Your task to perform on an android device: change the clock display to show seconds Image 0: 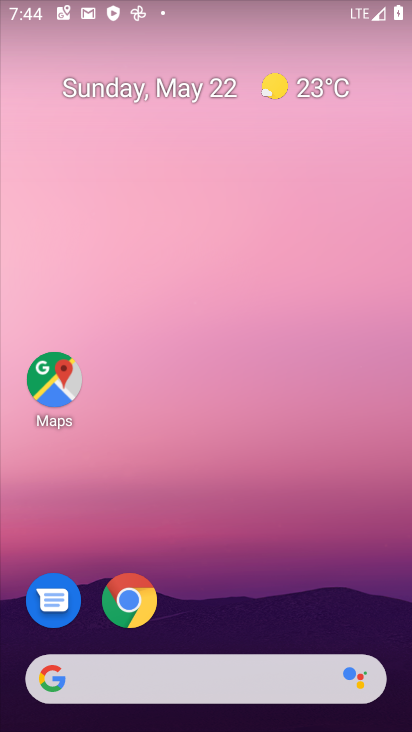
Step 0: drag from (300, 608) to (285, 99)
Your task to perform on an android device: change the clock display to show seconds Image 1: 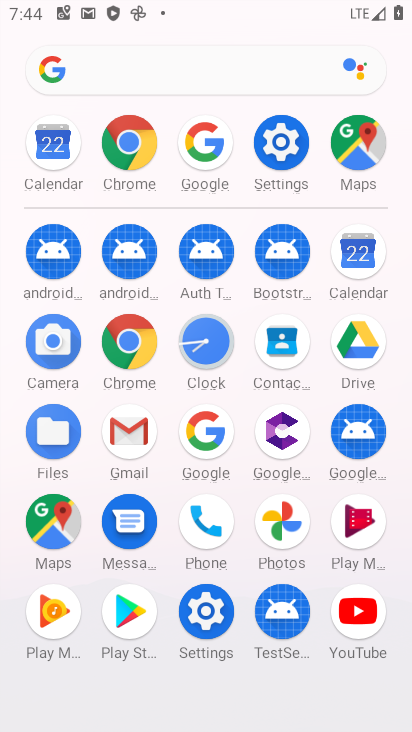
Step 1: click (222, 364)
Your task to perform on an android device: change the clock display to show seconds Image 2: 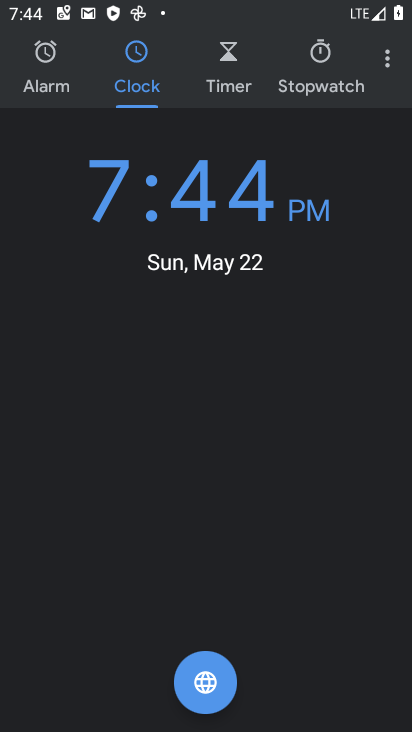
Step 2: click (383, 63)
Your task to perform on an android device: change the clock display to show seconds Image 3: 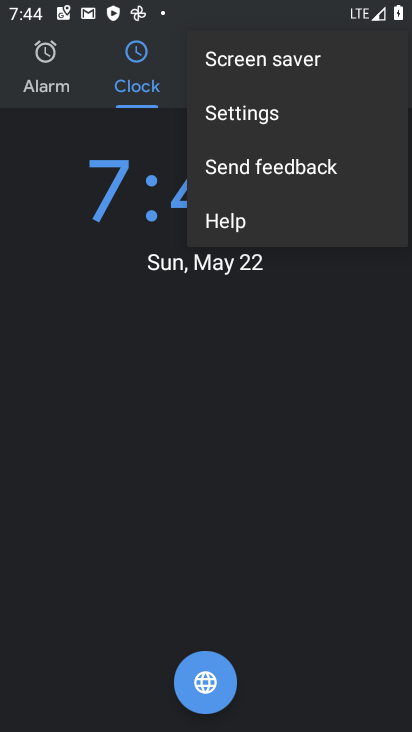
Step 3: click (296, 111)
Your task to perform on an android device: change the clock display to show seconds Image 4: 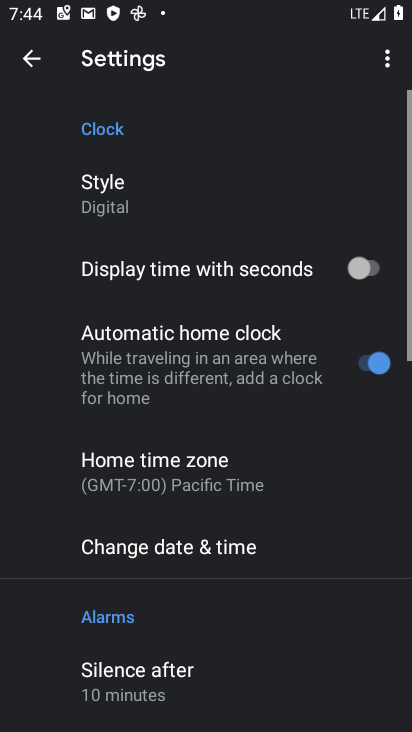
Step 4: click (330, 262)
Your task to perform on an android device: change the clock display to show seconds Image 5: 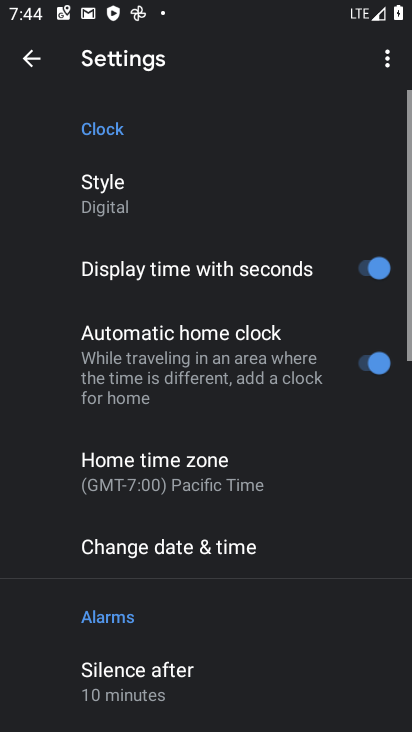
Step 5: task complete